Your task to perform on an android device: Go to battery settings Image 0: 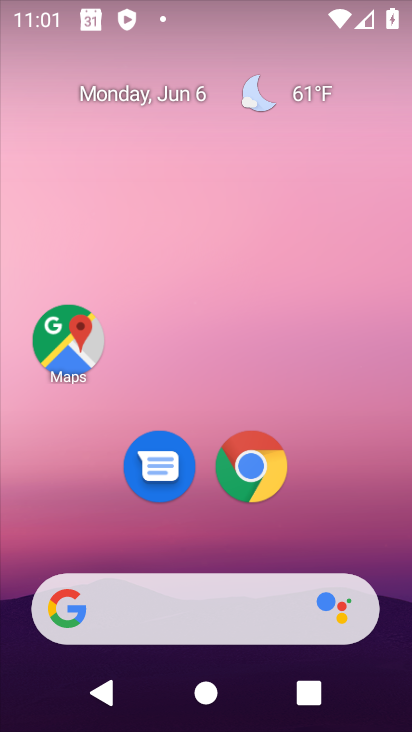
Step 0: press home button
Your task to perform on an android device: Go to battery settings Image 1: 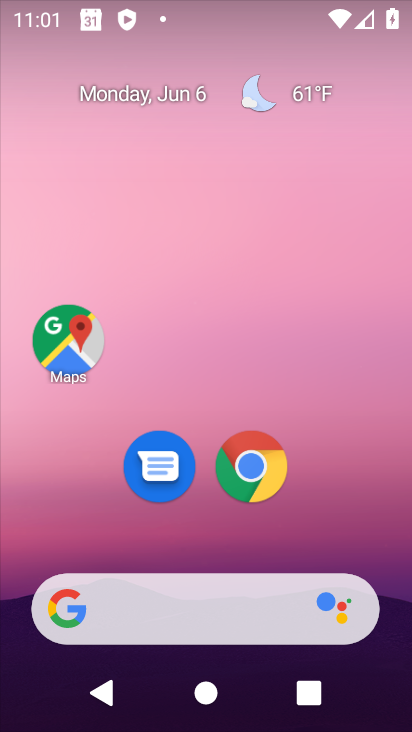
Step 1: drag from (376, 561) to (291, 108)
Your task to perform on an android device: Go to battery settings Image 2: 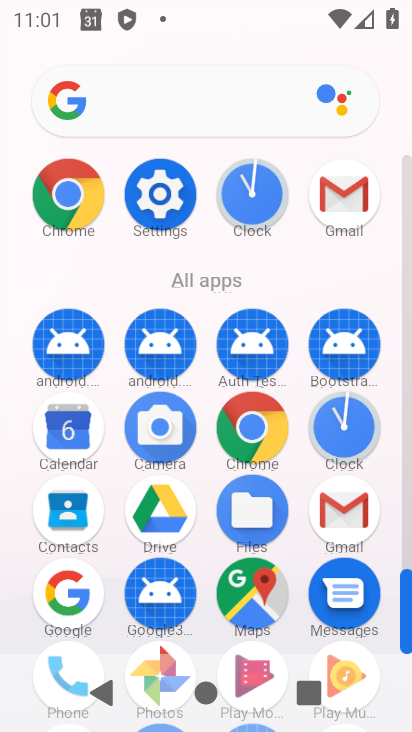
Step 2: click (140, 194)
Your task to perform on an android device: Go to battery settings Image 3: 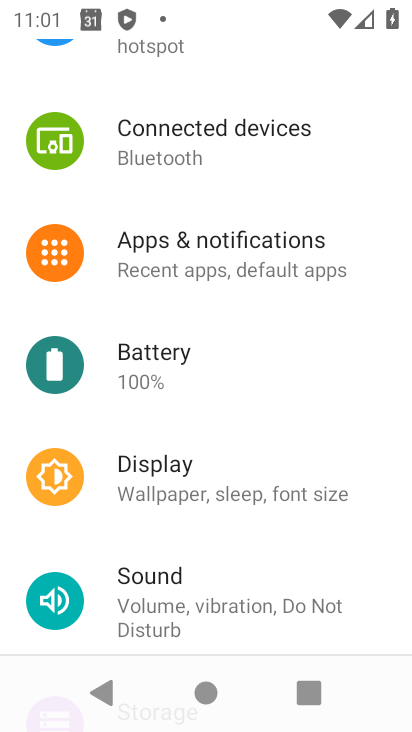
Step 3: click (143, 345)
Your task to perform on an android device: Go to battery settings Image 4: 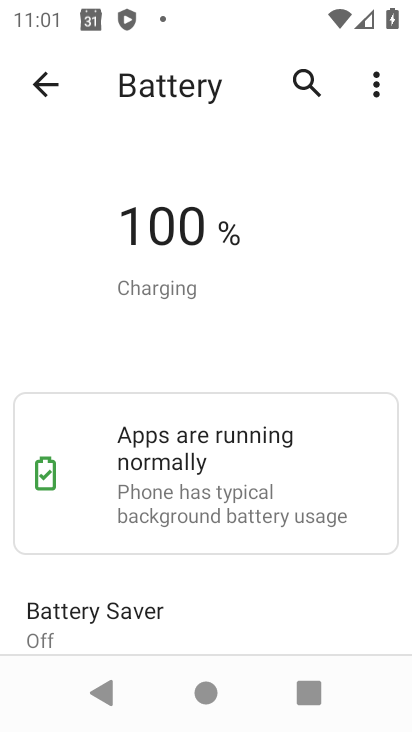
Step 4: task complete